Your task to perform on an android device: Open calendar and show me the first week of next month Image 0: 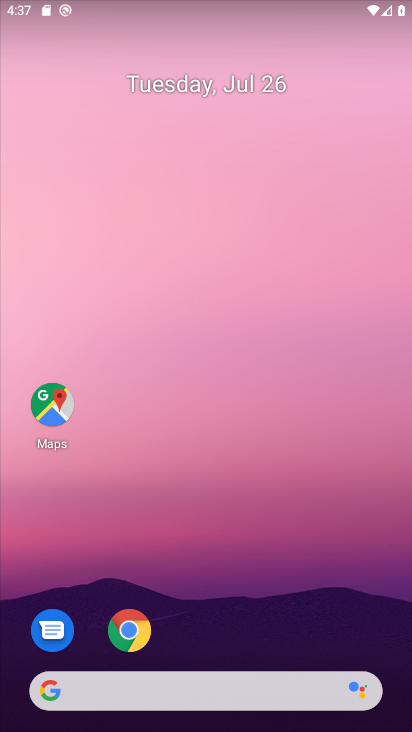
Step 0: drag from (245, 634) to (196, 157)
Your task to perform on an android device: Open calendar and show me the first week of next month Image 1: 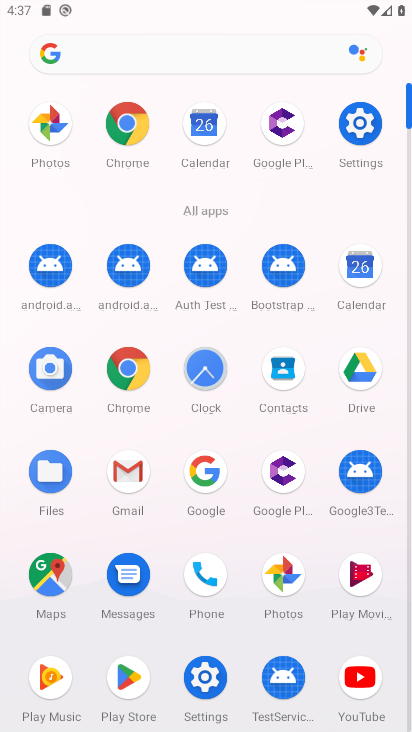
Step 1: click (365, 266)
Your task to perform on an android device: Open calendar and show me the first week of next month Image 2: 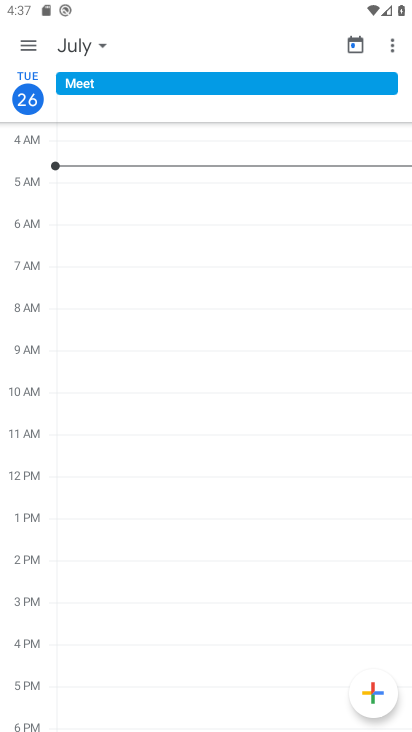
Step 2: click (27, 42)
Your task to perform on an android device: Open calendar and show me the first week of next month Image 3: 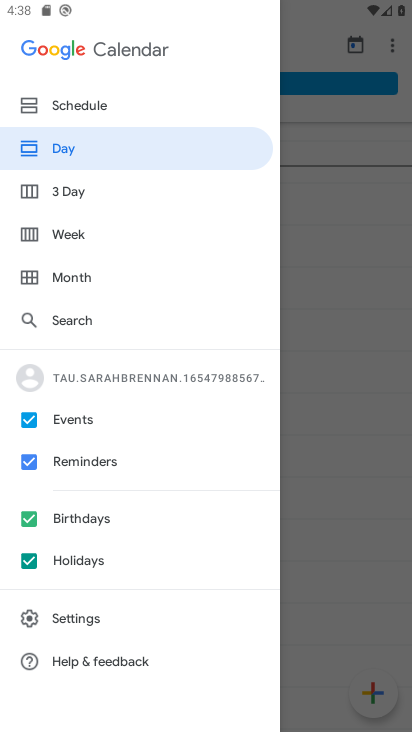
Step 3: click (84, 231)
Your task to perform on an android device: Open calendar and show me the first week of next month Image 4: 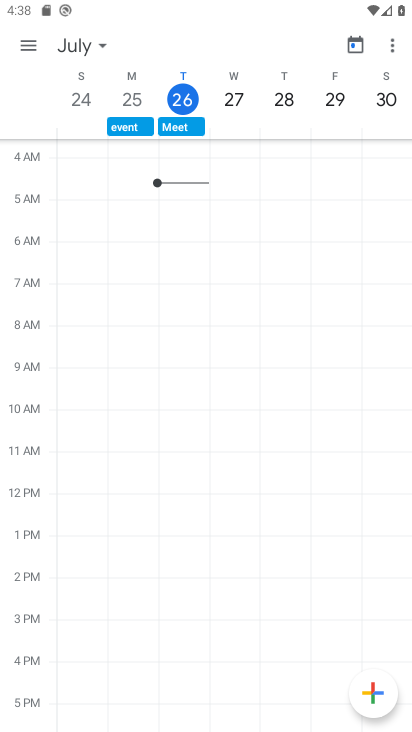
Step 4: click (94, 49)
Your task to perform on an android device: Open calendar and show me the first week of next month Image 5: 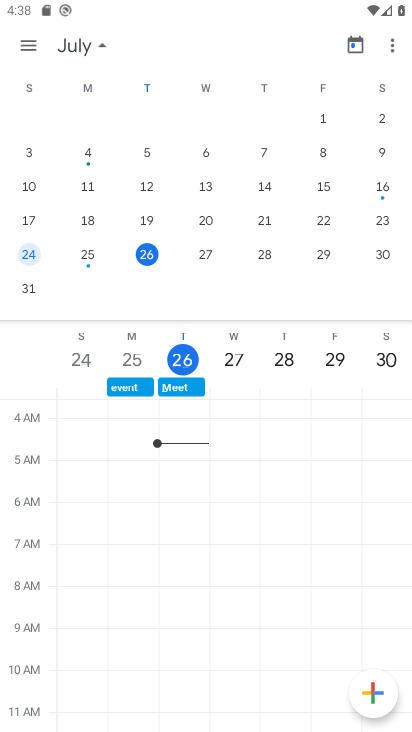
Step 5: task complete